Your task to perform on an android device: change the upload size in google photos Image 0: 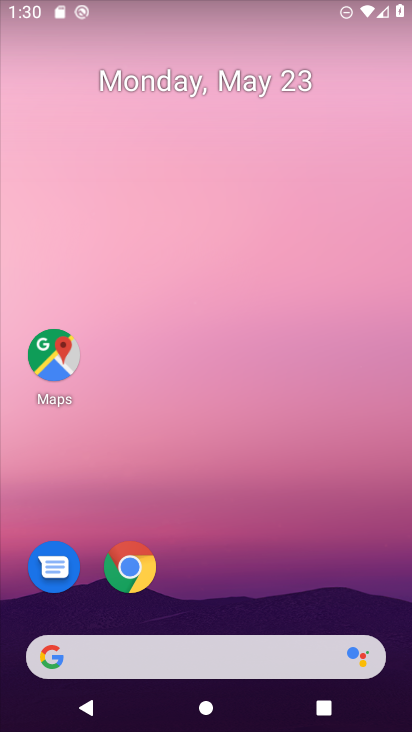
Step 0: drag from (308, 578) to (312, 83)
Your task to perform on an android device: change the upload size in google photos Image 1: 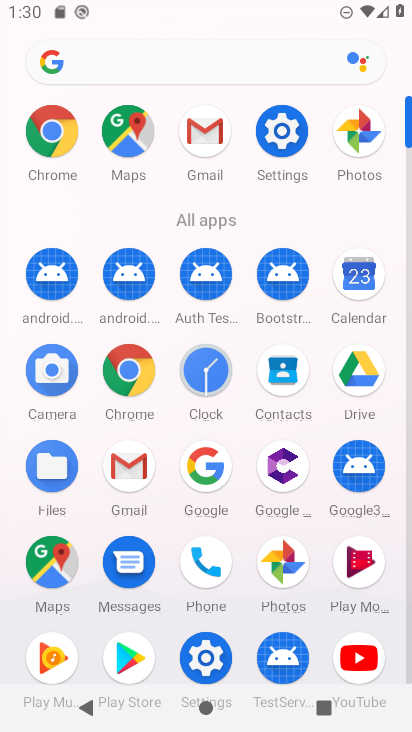
Step 1: click (263, 546)
Your task to perform on an android device: change the upload size in google photos Image 2: 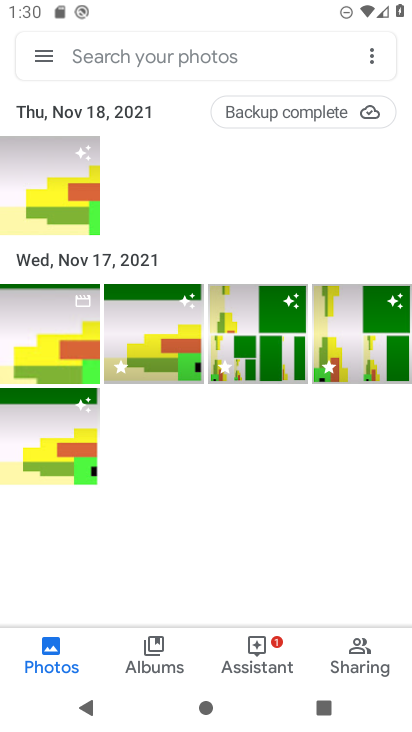
Step 2: click (58, 60)
Your task to perform on an android device: change the upload size in google photos Image 3: 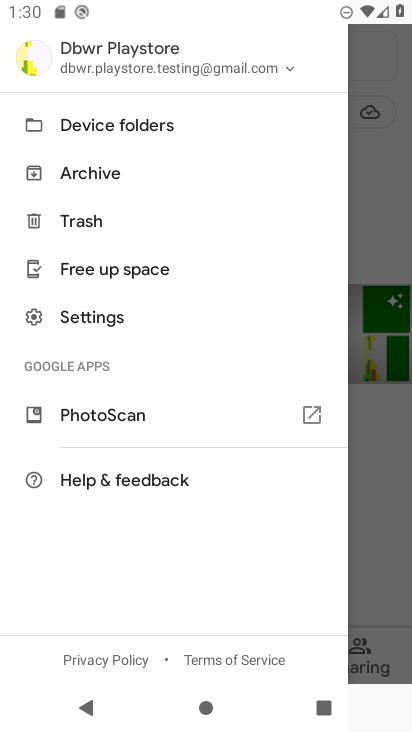
Step 3: click (109, 313)
Your task to perform on an android device: change the upload size in google photos Image 4: 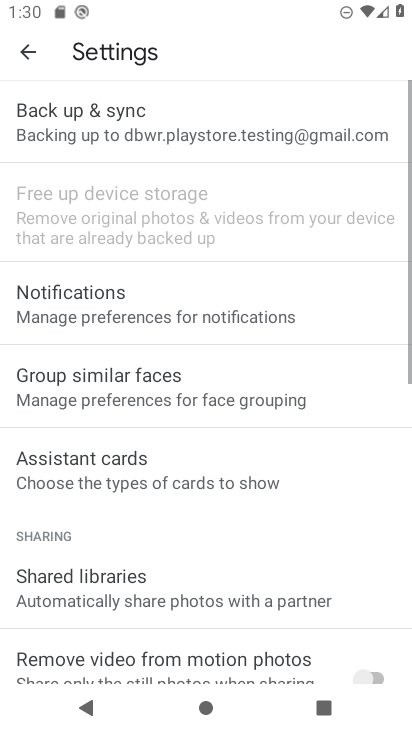
Step 4: click (139, 125)
Your task to perform on an android device: change the upload size in google photos Image 5: 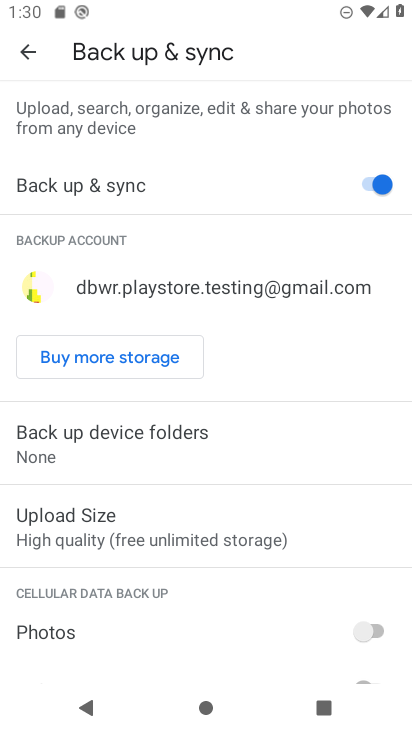
Step 5: click (130, 521)
Your task to perform on an android device: change the upload size in google photos Image 6: 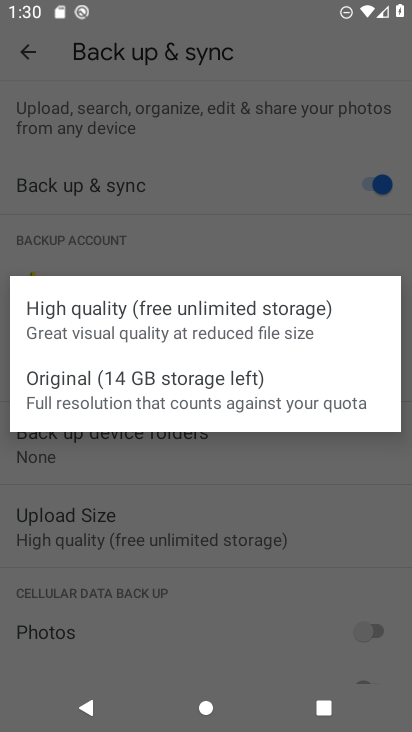
Step 6: click (132, 380)
Your task to perform on an android device: change the upload size in google photos Image 7: 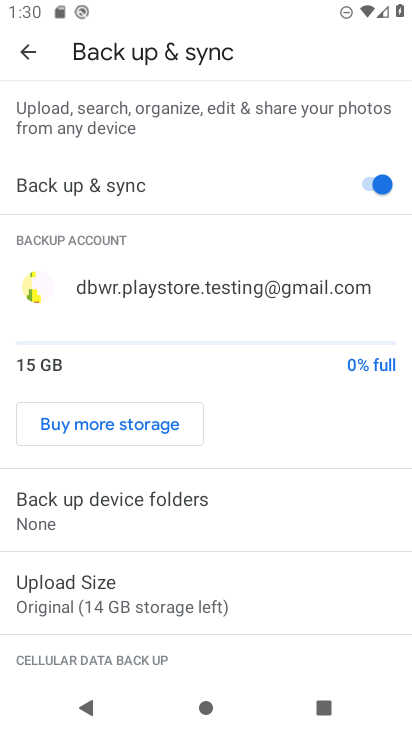
Step 7: task complete